Your task to perform on an android device: change the clock display to show seconds Image 0: 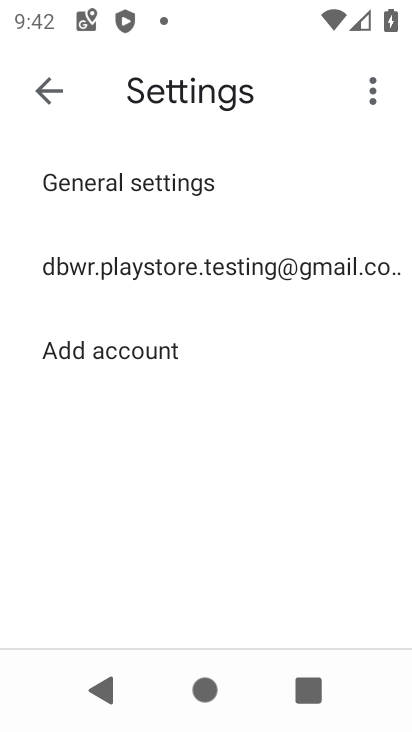
Step 0: press home button
Your task to perform on an android device: change the clock display to show seconds Image 1: 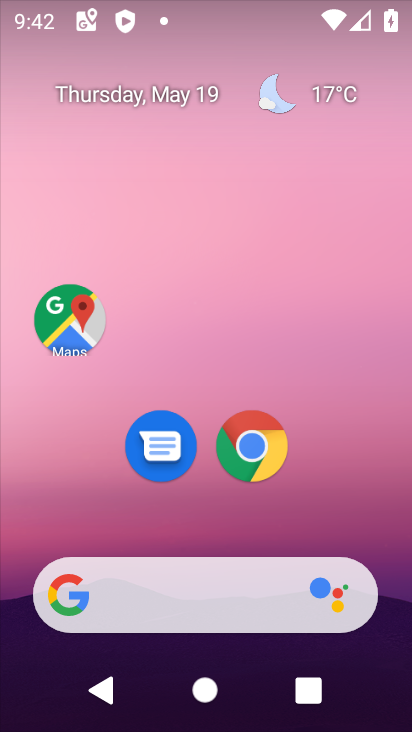
Step 1: drag from (209, 511) to (251, 18)
Your task to perform on an android device: change the clock display to show seconds Image 2: 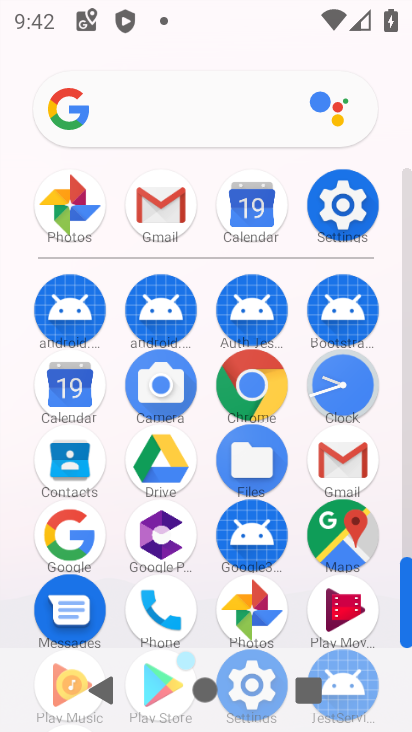
Step 2: click (353, 390)
Your task to perform on an android device: change the clock display to show seconds Image 3: 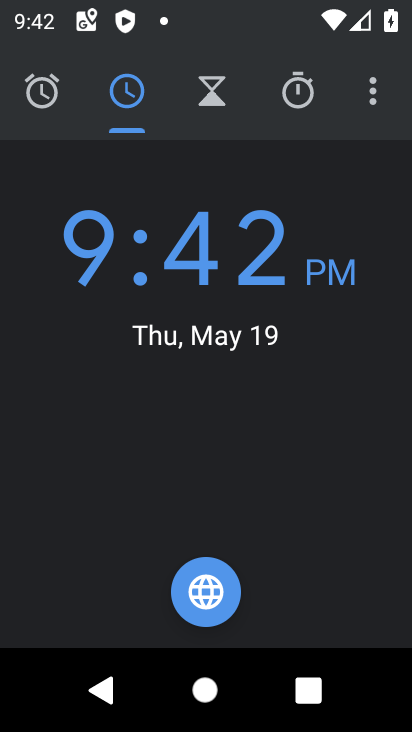
Step 3: click (380, 108)
Your task to perform on an android device: change the clock display to show seconds Image 4: 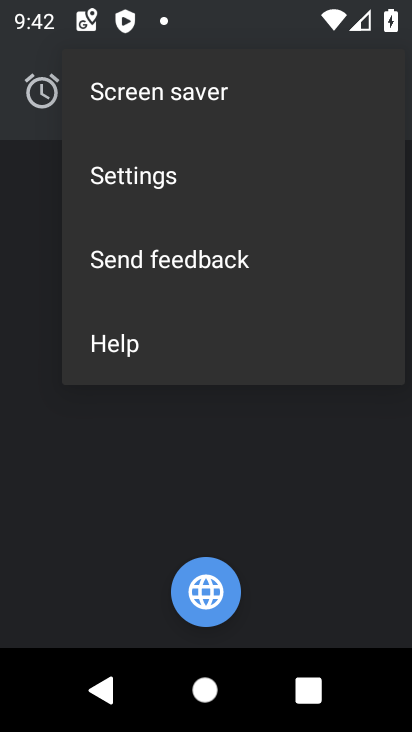
Step 4: click (175, 179)
Your task to perform on an android device: change the clock display to show seconds Image 5: 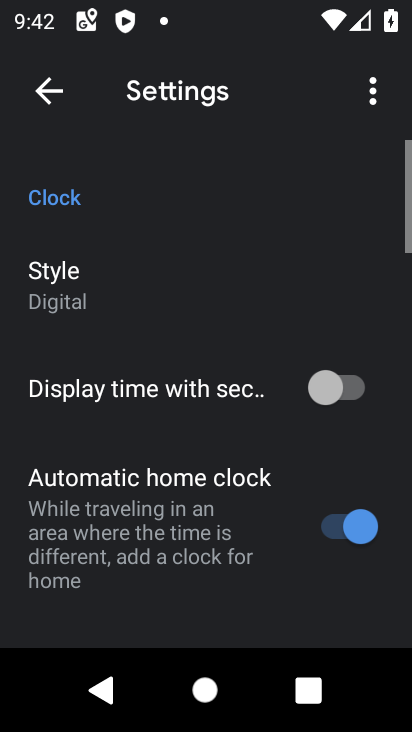
Step 5: click (63, 287)
Your task to perform on an android device: change the clock display to show seconds Image 6: 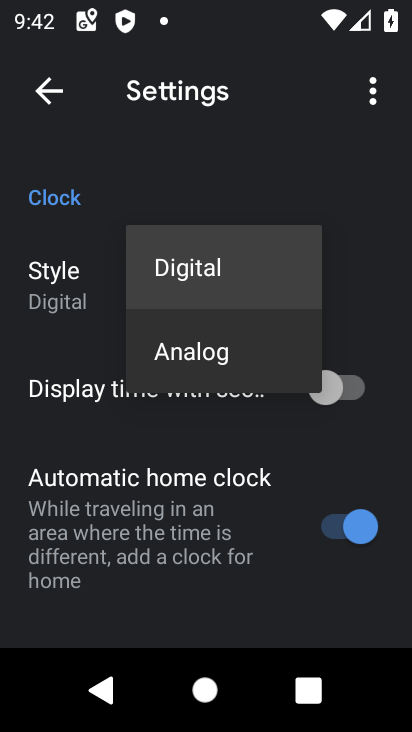
Step 6: click (186, 370)
Your task to perform on an android device: change the clock display to show seconds Image 7: 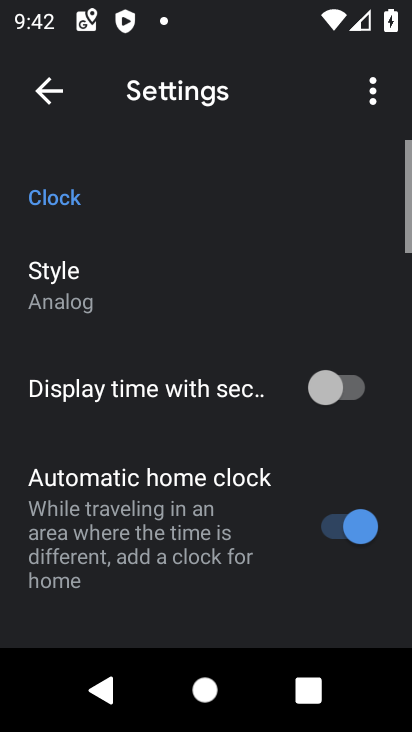
Step 7: click (377, 399)
Your task to perform on an android device: change the clock display to show seconds Image 8: 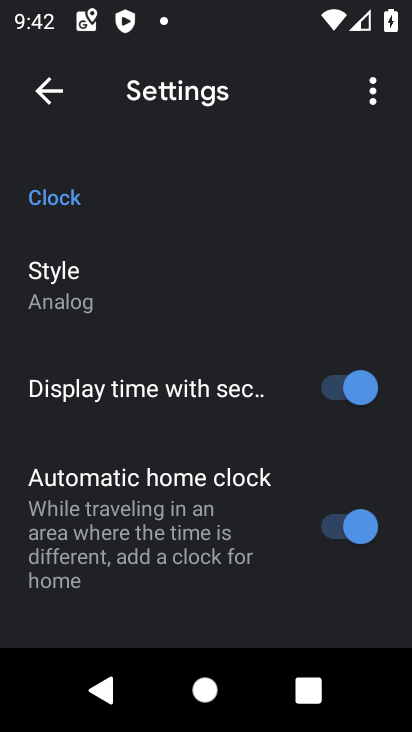
Step 8: task complete